Your task to perform on an android device: turn on notifications settings in the gmail app Image 0: 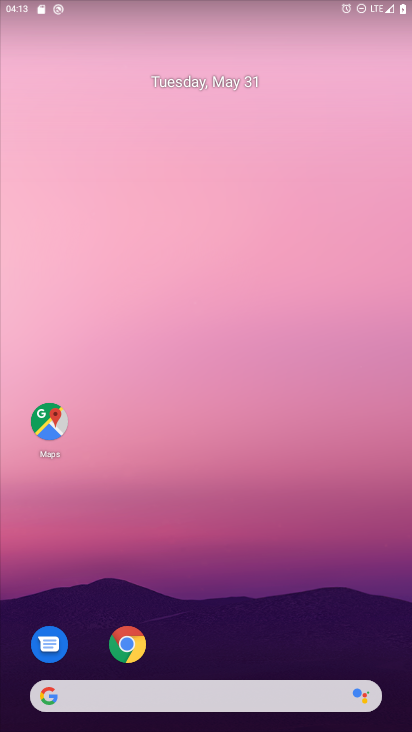
Step 0: drag from (300, 596) to (297, 21)
Your task to perform on an android device: turn on notifications settings in the gmail app Image 1: 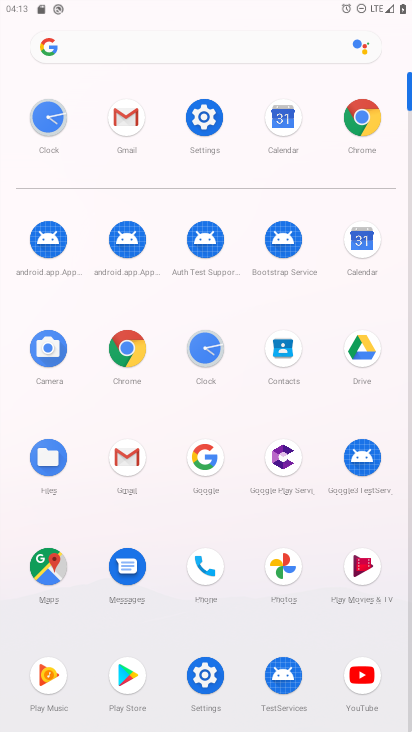
Step 1: click (129, 115)
Your task to perform on an android device: turn on notifications settings in the gmail app Image 2: 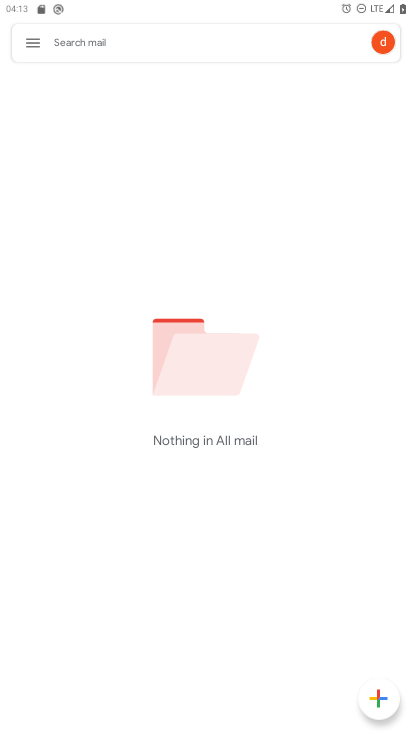
Step 2: click (23, 48)
Your task to perform on an android device: turn on notifications settings in the gmail app Image 3: 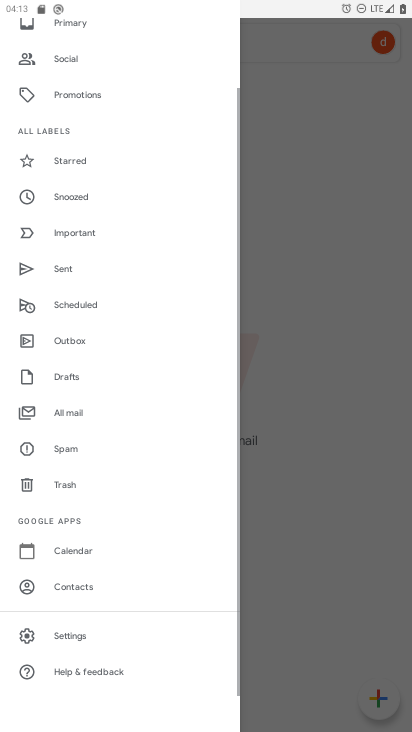
Step 3: click (89, 632)
Your task to perform on an android device: turn on notifications settings in the gmail app Image 4: 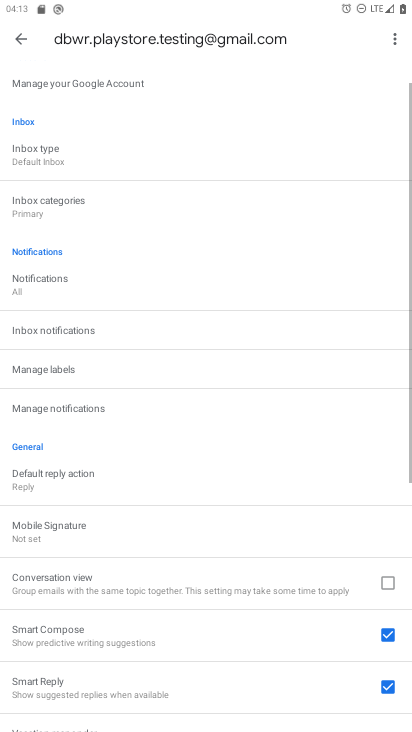
Step 4: drag from (138, 191) to (186, 696)
Your task to perform on an android device: turn on notifications settings in the gmail app Image 5: 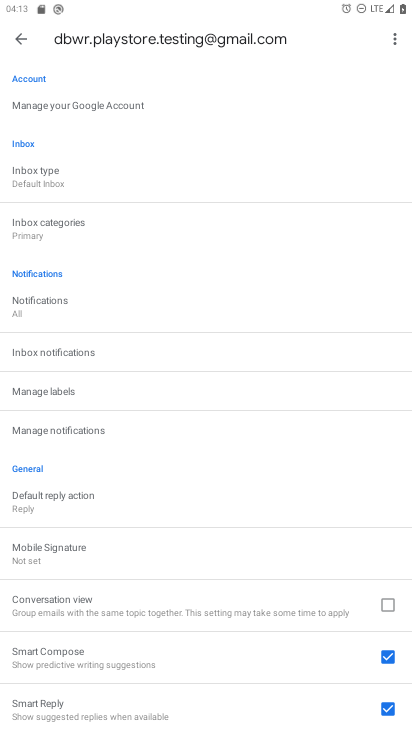
Step 5: click (76, 428)
Your task to perform on an android device: turn on notifications settings in the gmail app Image 6: 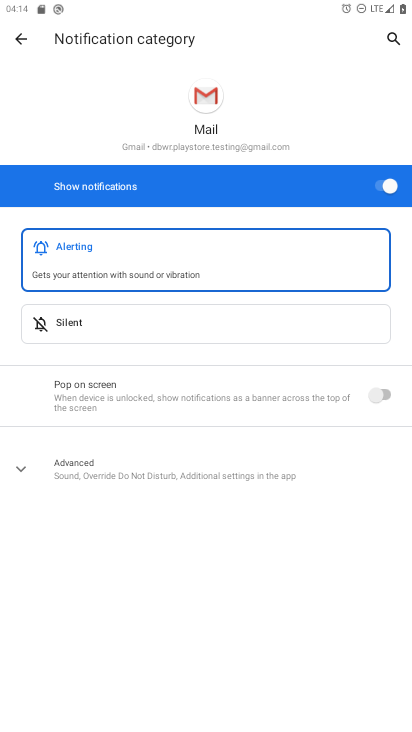
Step 6: task complete